Your task to perform on an android device: Open Google Image 0: 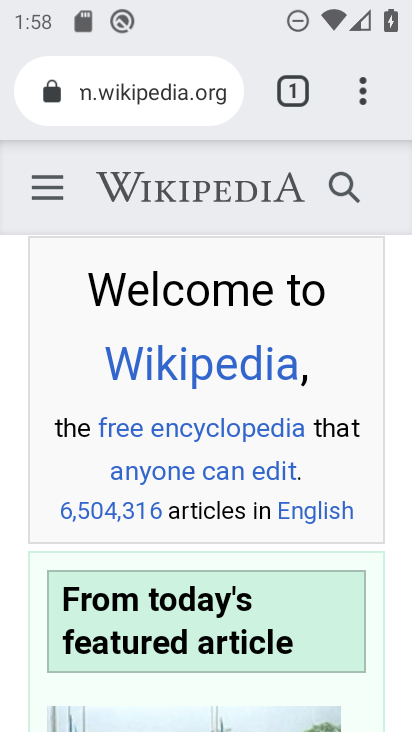
Step 0: press home button
Your task to perform on an android device: Open Google Image 1: 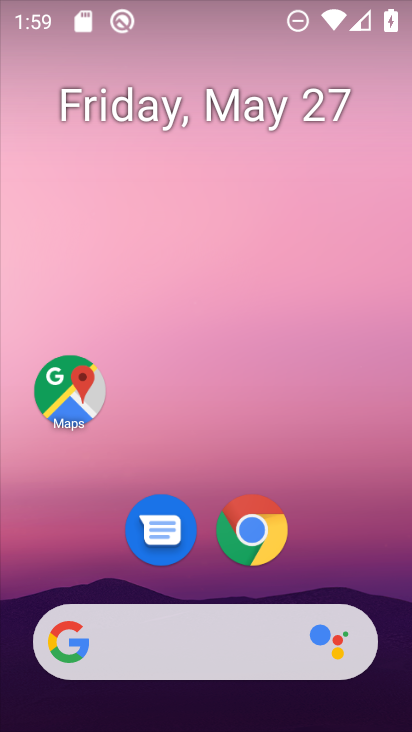
Step 1: drag from (133, 728) to (139, 47)
Your task to perform on an android device: Open Google Image 2: 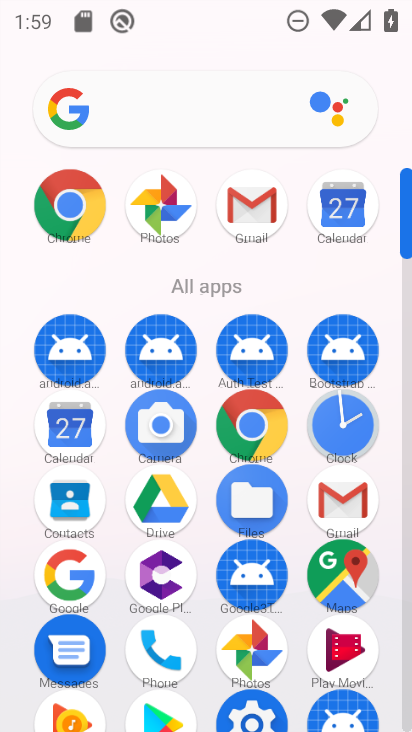
Step 2: click (89, 586)
Your task to perform on an android device: Open Google Image 3: 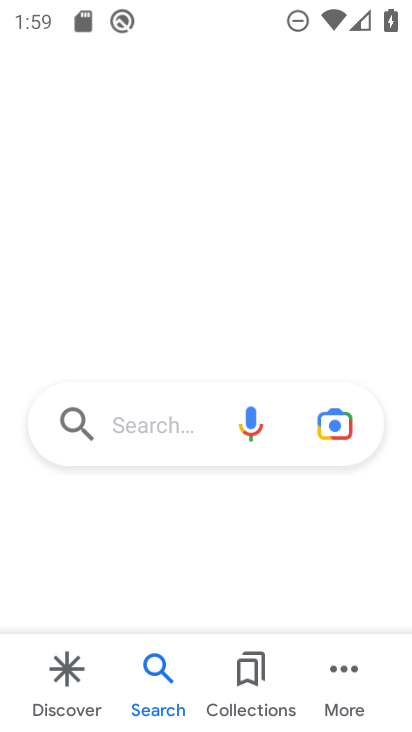
Step 3: task complete